Your task to perform on an android device: change the upload size in google photos Image 0: 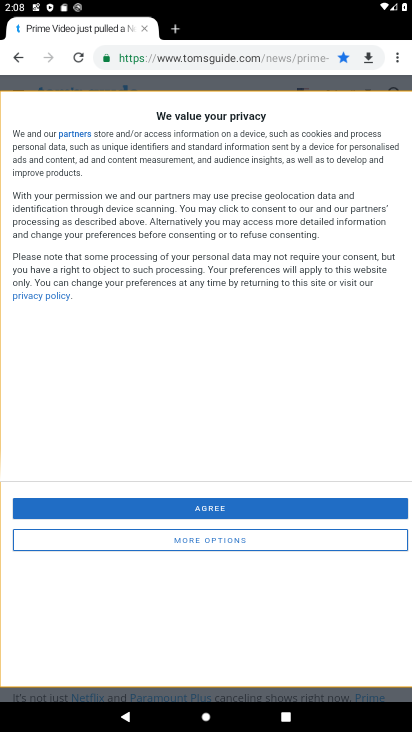
Step 0: press home button
Your task to perform on an android device: change the upload size in google photos Image 1: 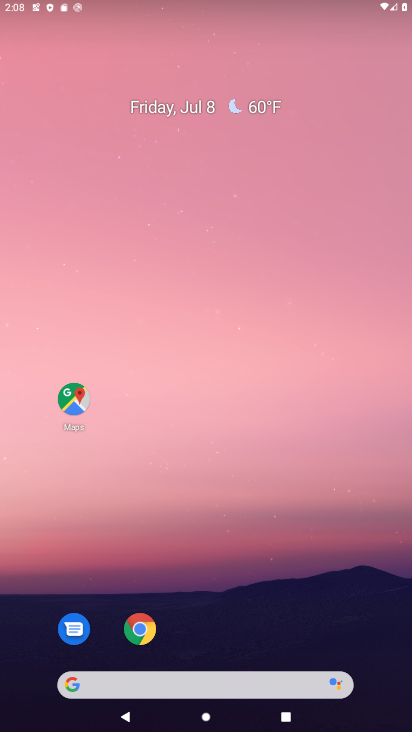
Step 1: drag from (199, 625) to (215, 198)
Your task to perform on an android device: change the upload size in google photos Image 2: 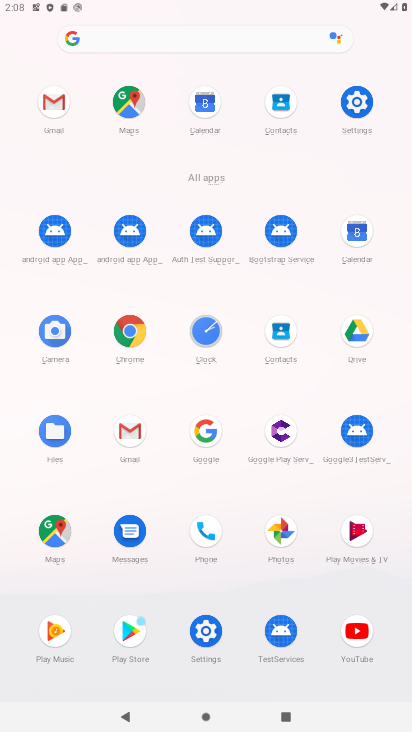
Step 2: click (288, 532)
Your task to perform on an android device: change the upload size in google photos Image 3: 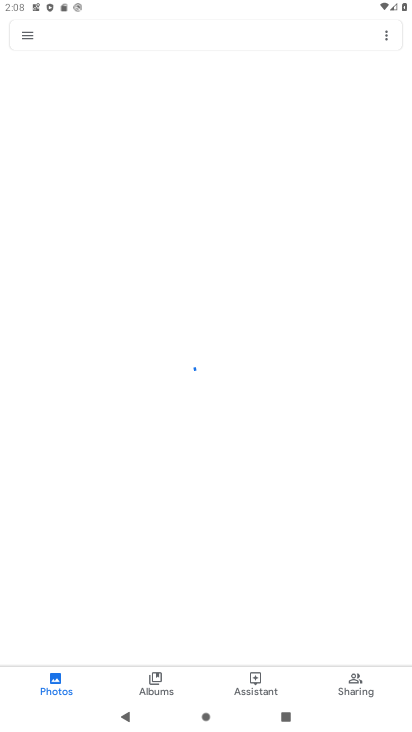
Step 3: click (35, 44)
Your task to perform on an android device: change the upload size in google photos Image 4: 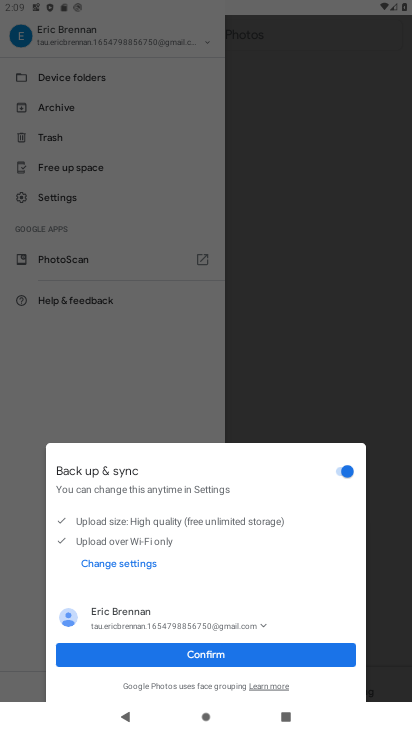
Step 4: click (234, 650)
Your task to perform on an android device: change the upload size in google photos Image 5: 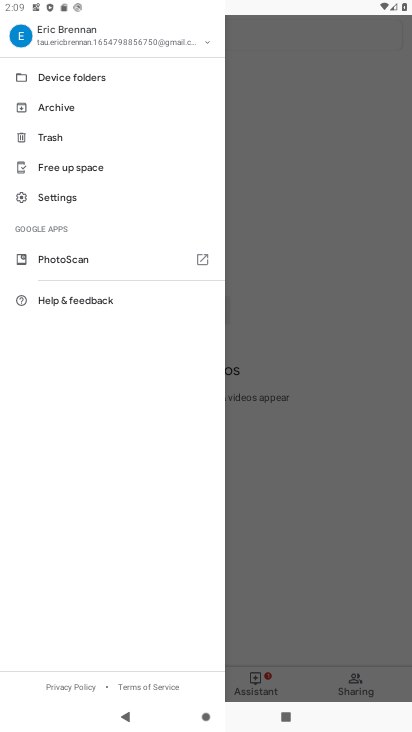
Step 5: click (77, 202)
Your task to perform on an android device: change the upload size in google photos Image 6: 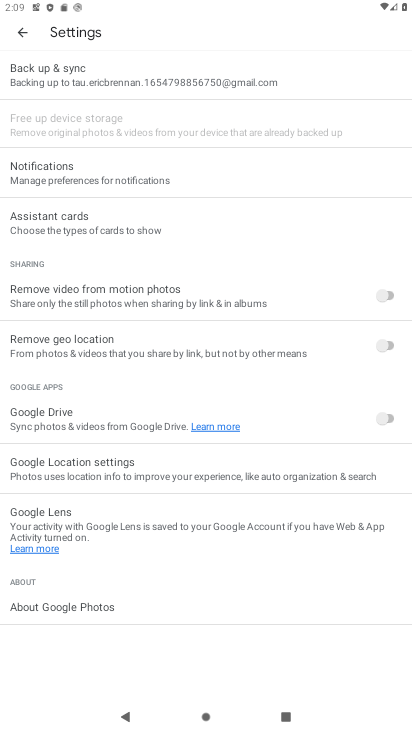
Step 6: click (119, 87)
Your task to perform on an android device: change the upload size in google photos Image 7: 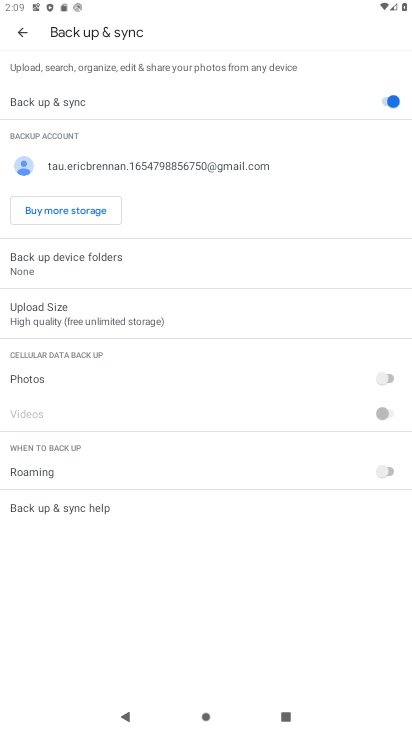
Step 7: click (119, 315)
Your task to perform on an android device: change the upload size in google photos Image 8: 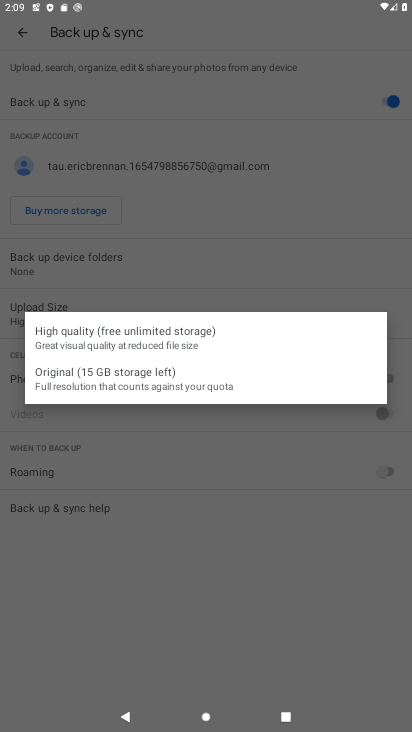
Step 8: click (112, 371)
Your task to perform on an android device: change the upload size in google photos Image 9: 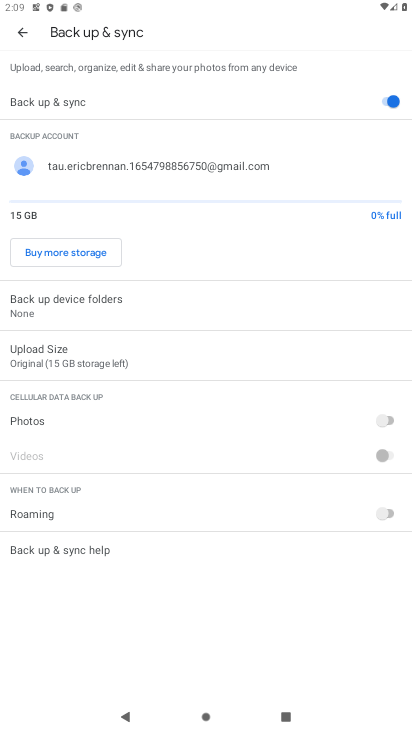
Step 9: task complete